Your task to perform on an android device: Open settings Image 0: 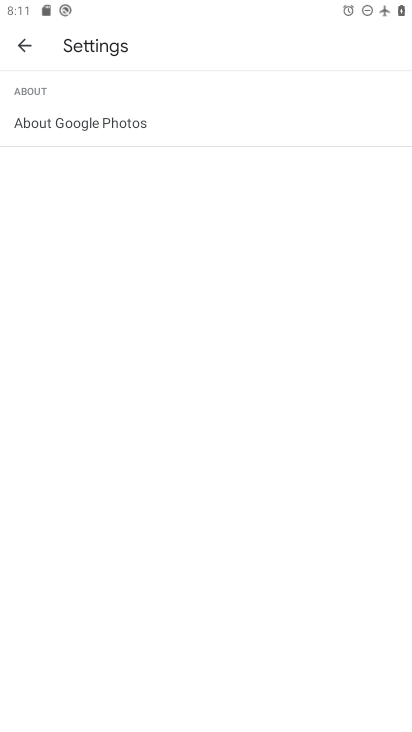
Step 0: press home button
Your task to perform on an android device: Open settings Image 1: 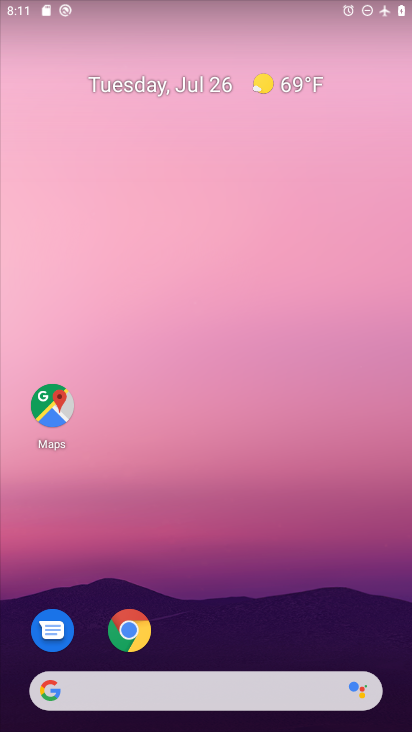
Step 1: drag from (281, 451) to (271, 132)
Your task to perform on an android device: Open settings Image 2: 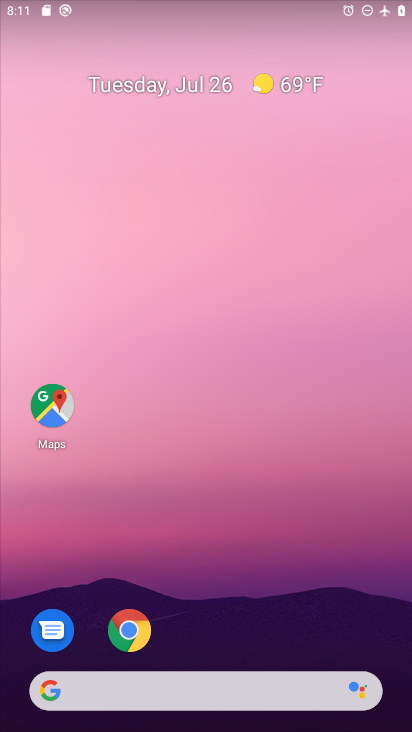
Step 2: drag from (233, 537) to (243, 147)
Your task to perform on an android device: Open settings Image 3: 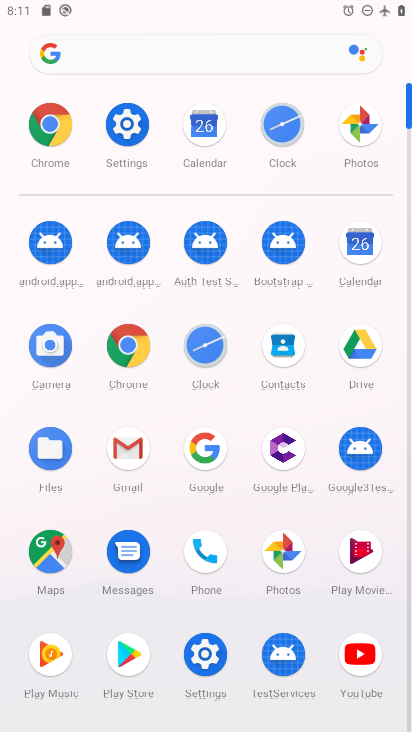
Step 3: click (206, 647)
Your task to perform on an android device: Open settings Image 4: 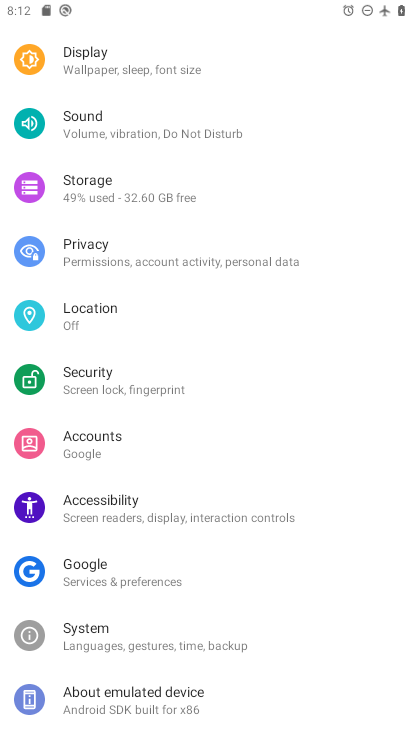
Step 4: task complete